Your task to perform on an android device: delete a single message in the gmail app Image 0: 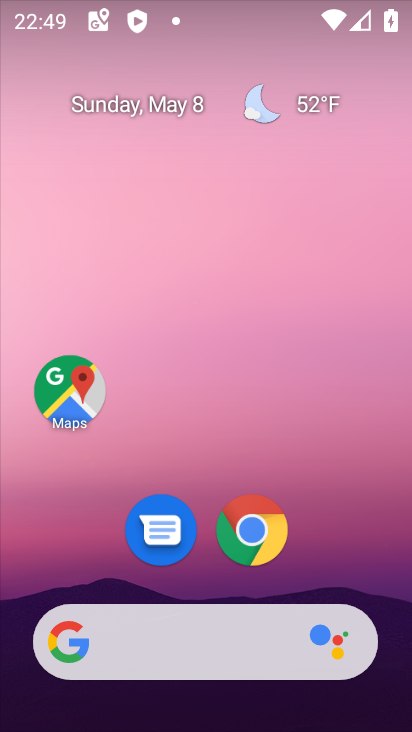
Step 0: drag from (369, 557) to (377, 4)
Your task to perform on an android device: delete a single message in the gmail app Image 1: 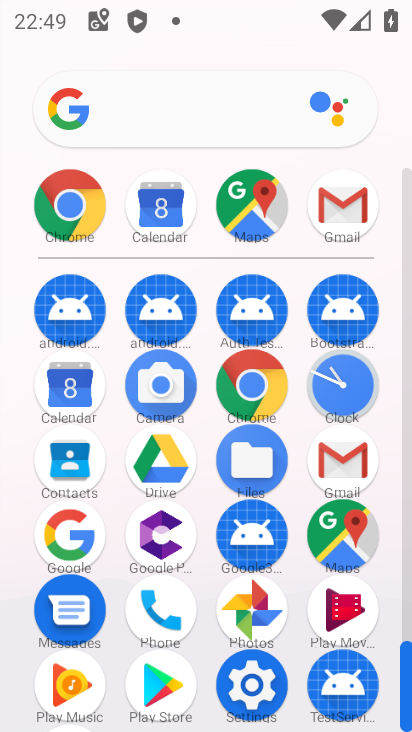
Step 1: click (329, 457)
Your task to perform on an android device: delete a single message in the gmail app Image 2: 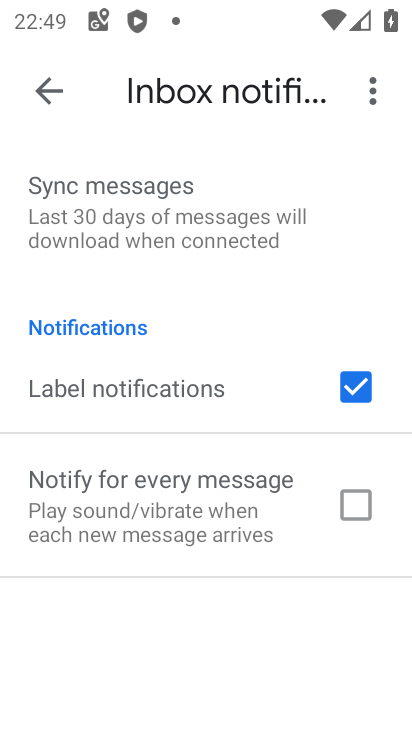
Step 2: click (56, 96)
Your task to perform on an android device: delete a single message in the gmail app Image 3: 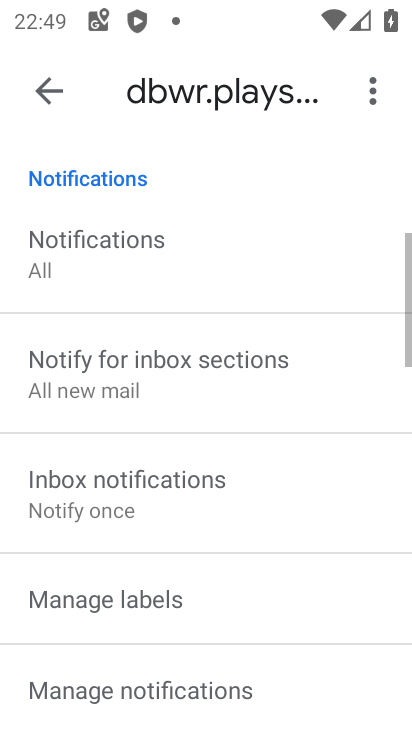
Step 3: click (55, 95)
Your task to perform on an android device: delete a single message in the gmail app Image 4: 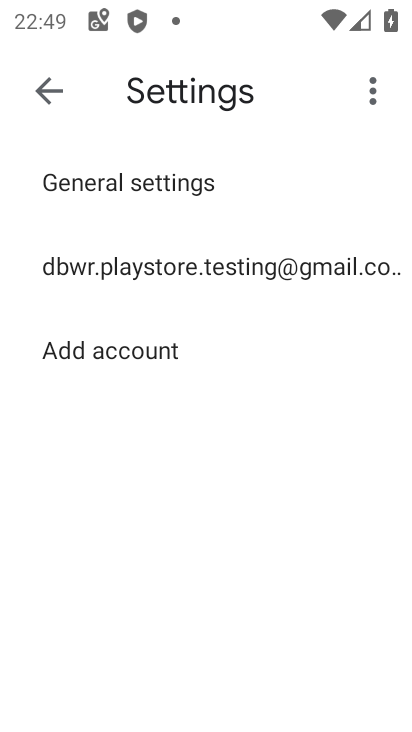
Step 4: click (55, 95)
Your task to perform on an android device: delete a single message in the gmail app Image 5: 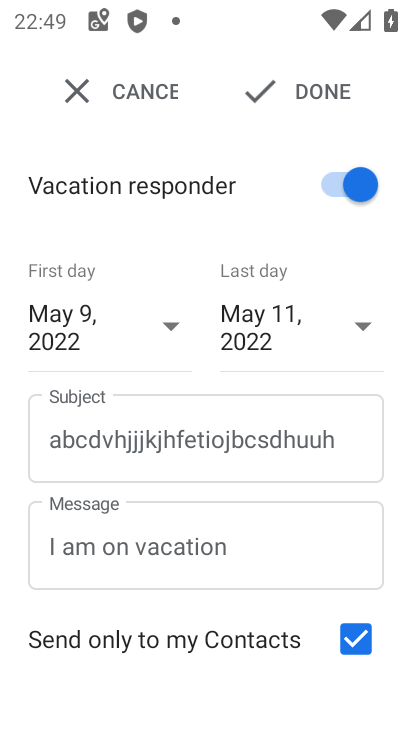
Step 5: click (56, 98)
Your task to perform on an android device: delete a single message in the gmail app Image 6: 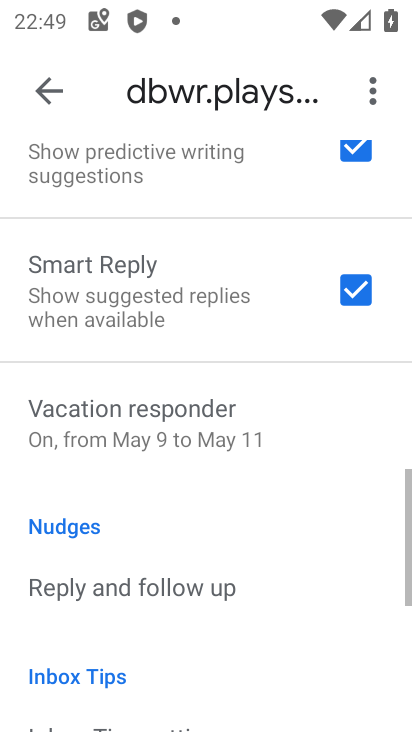
Step 6: click (56, 98)
Your task to perform on an android device: delete a single message in the gmail app Image 7: 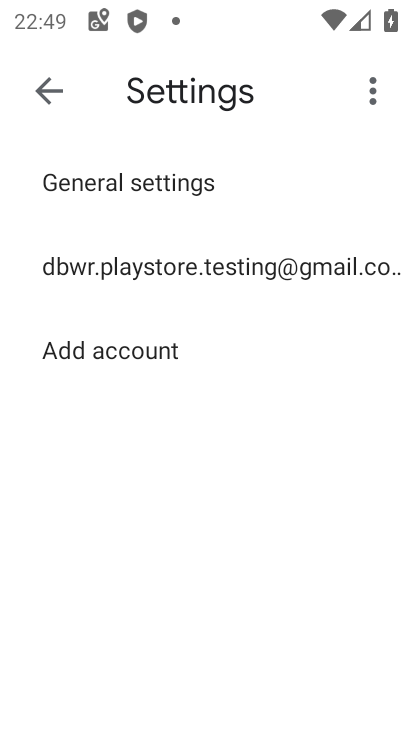
Step 7: click (56, 98)
Your task to perform on an android device: delete a single message in the gmail app Image 8: 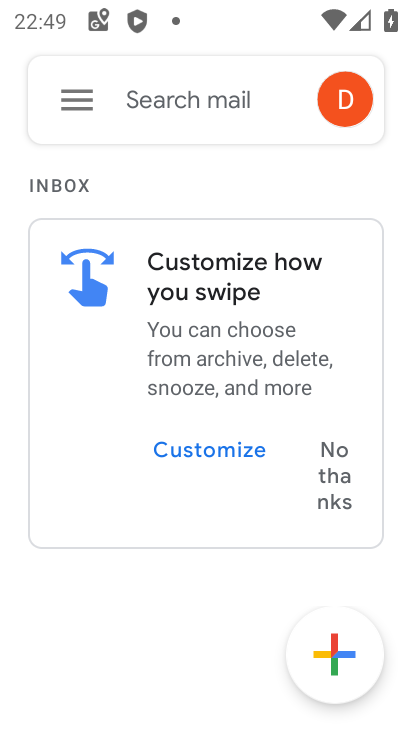
Step 8: click (100, 111)
Your task to perform on an android device: delete a single message in the gmail app Image 9: 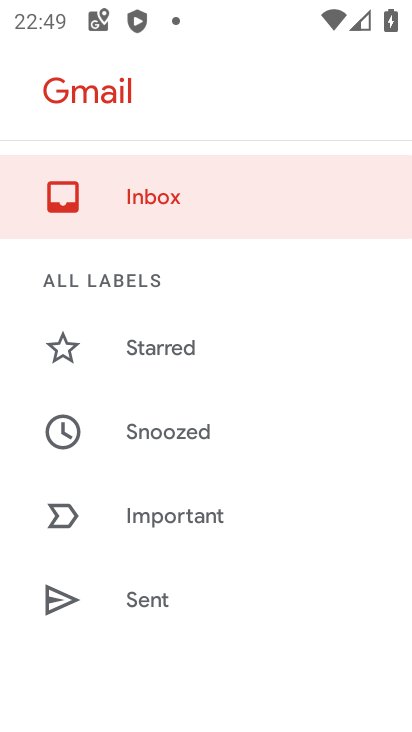
Step 9: drag from (225, 574) to (250, 320)
Your task to perform on an android device: delete a single message in the gmail app Image 10: 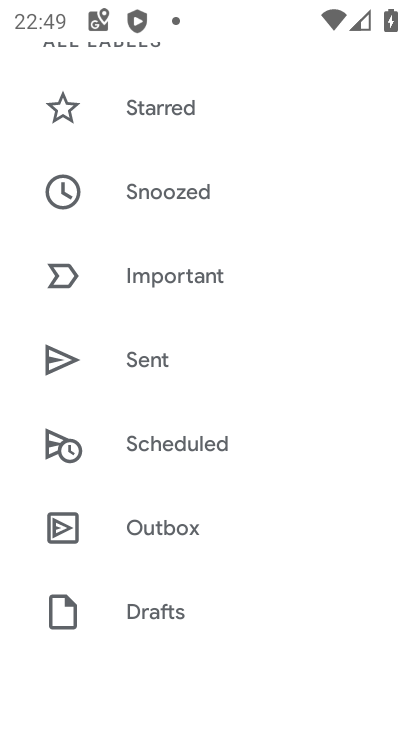
Step 10: drag from (245, 549) to (266, 267)
Your task to perform on an android device: delete a single message in the gmail app Image 11: 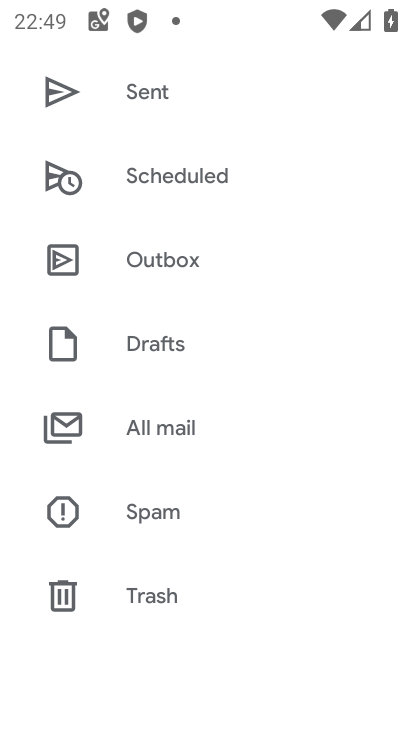
Step 11: click (204, 446)
Your task to perform on an android device: delete a single message in the gmail app Image 12: 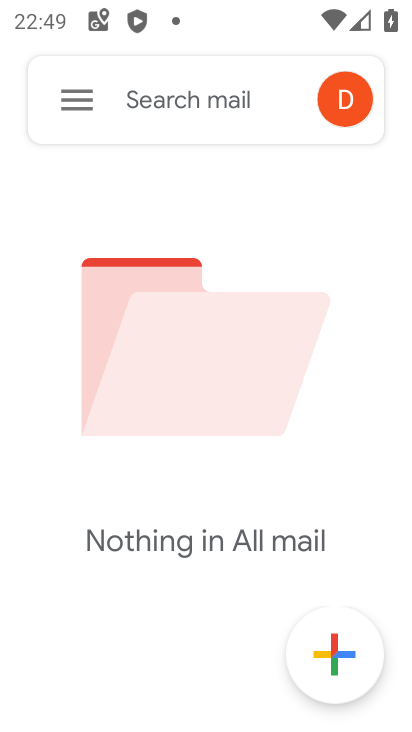
Step 12: task complete